Your task to perform on an android device: change notification settings in the gmail app Image 0: 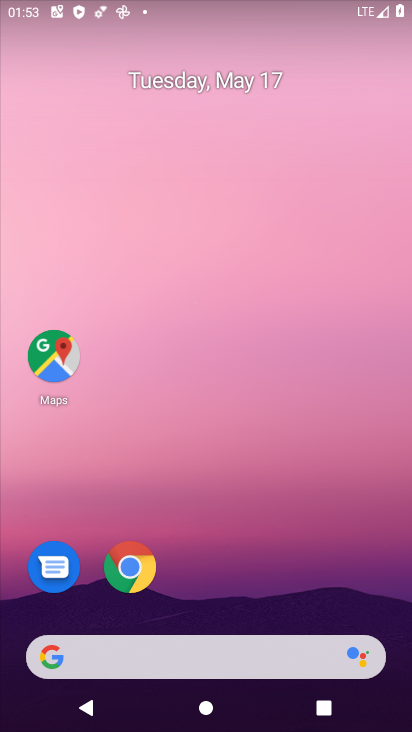
Step 0: drag from (391, 641) to (327, 96)
Your task to perform on an android device: change notification settings in the gmail app Image 1: 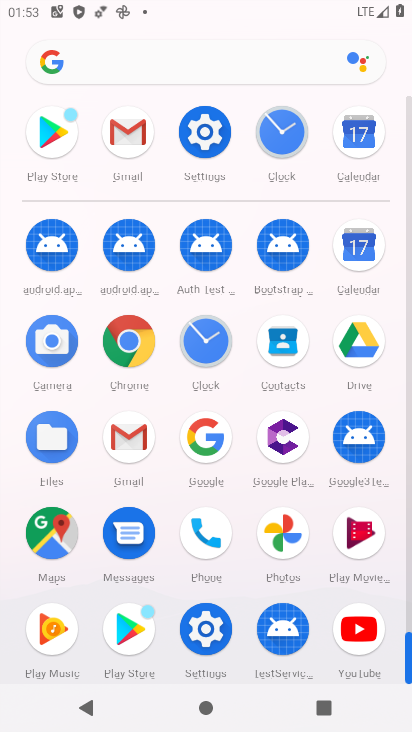
Step 1: click (129, 439)
Your task to perform on an android device: change notification settings in the gmail app Image 2: 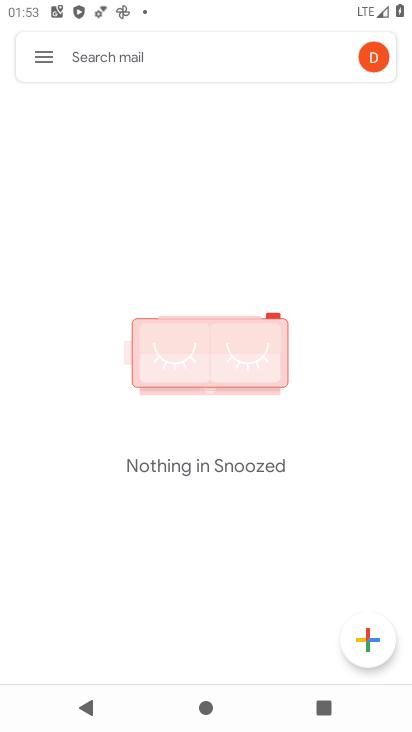
Step 2: click (36, 54)
Your task to perform on an android device: change notification settings in the gmail app Image 3: 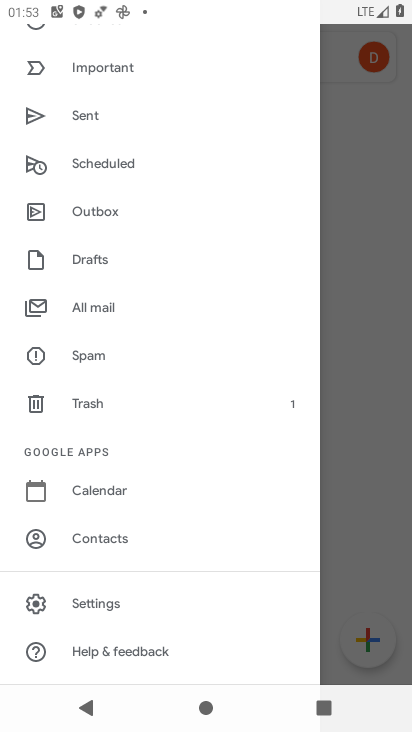
Step 3: click (106, 595)
Your task to perform on an android device: change notification settings in the gmail app Image 4: 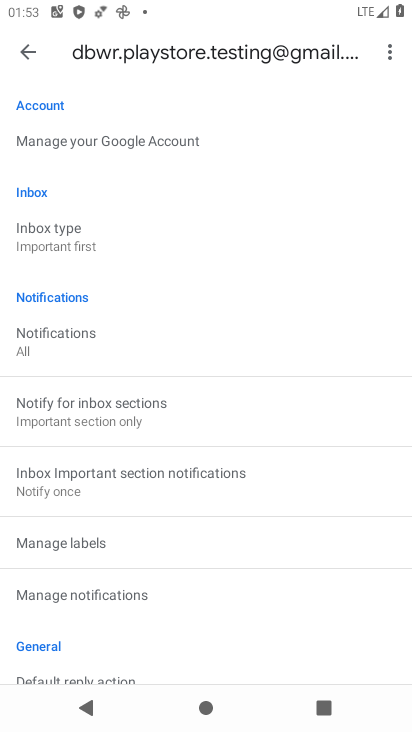
Step 4: click (89, 593)
Your task to perform on an android device: change notification settings in the gmail app Image 5: 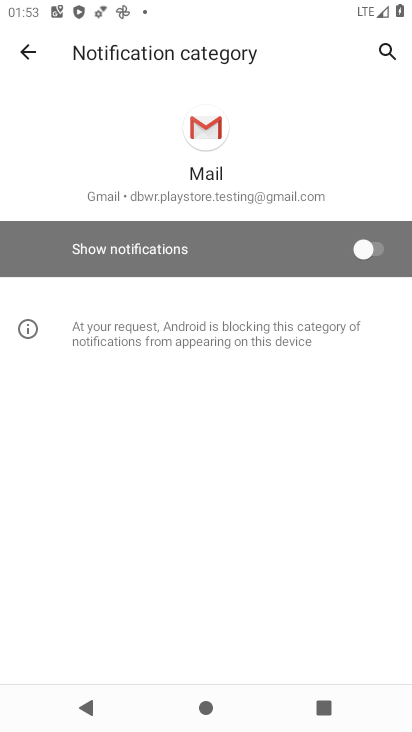
Step 5: click (373, 250)
Your task to perform on an android device: change notification settings in the gmail app Image 6: 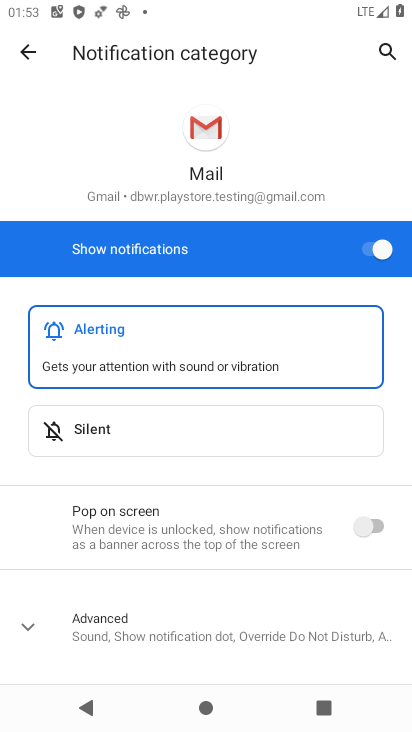
Step 6: task complete